Your task to perform on an android device: Open calendar and show me the first week of next month Image 0: 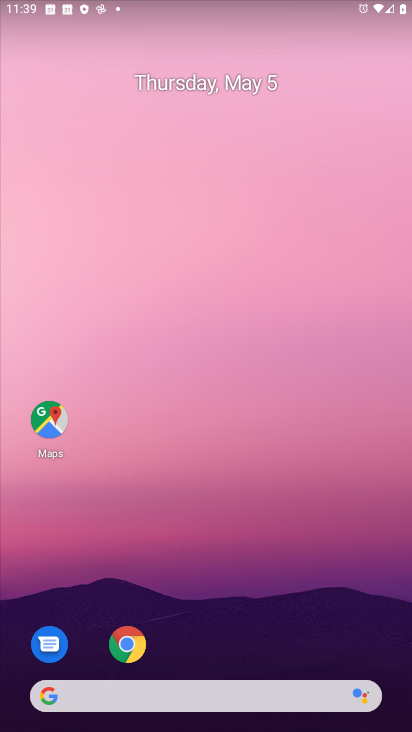
Step 0: drag from (181, 650) to (209, 108)
Your task to perform on an android device: Open calendar and show me the first week of next month Image 1: 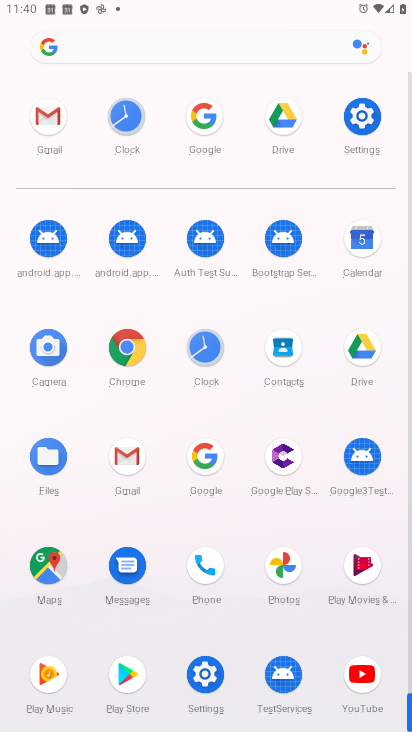
Step 1: click (367, 240)
Your task to perform on an android device: Open calendar and show me the first week of next month Image 2: 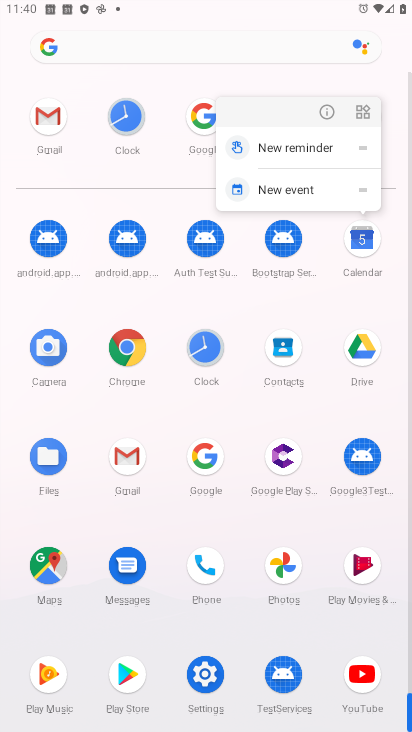
Step 2: click (334, 106)
Your task to perform on an android device: Open calendar and show me the first week of next month Image 3: 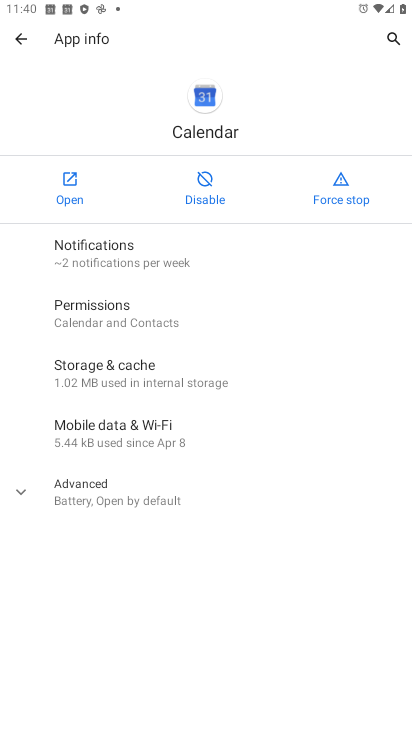
Step 3: click (76, 188)
Your task to perform on an android device: Open calendar and show me the first week of next month Image 4: 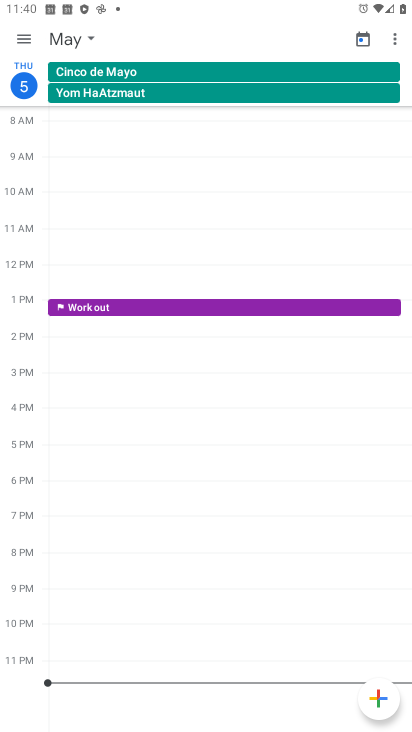
Step 4: drag from (164, 200) to (149, 543)
Your task to perform on an android device: Open calendar and show me the first week of next month Image 5: 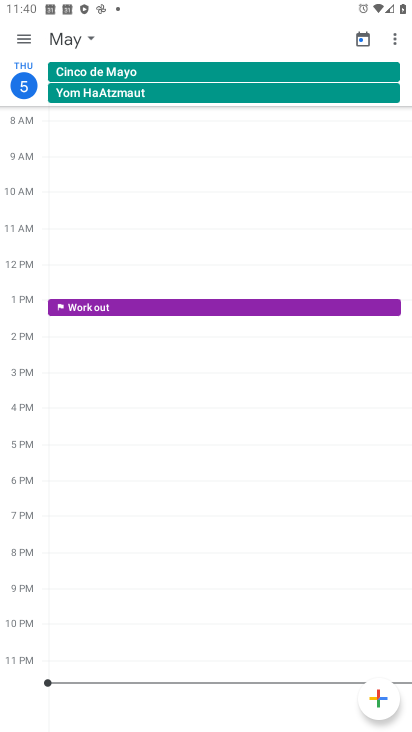
Step 5: drag from (210, 589) to (228, 171)
Your task to perform on an android device: Open calendar and show me the first week of next month Image 6: 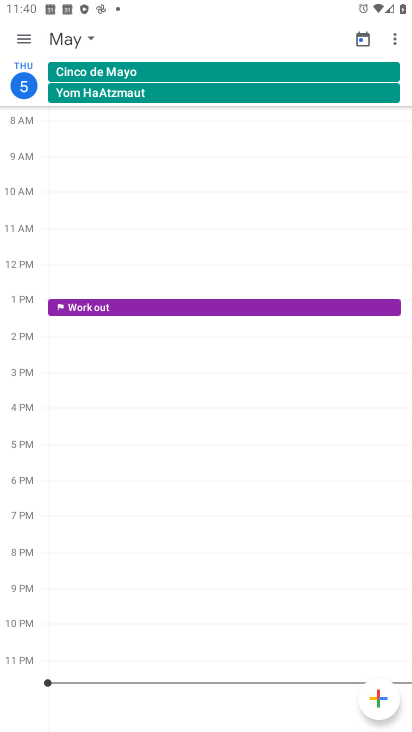
Step 6: drag from (213, 100) to (211, 518)
Your task to perform on an android device: Open calendar and show me the first week of next month Image 7: 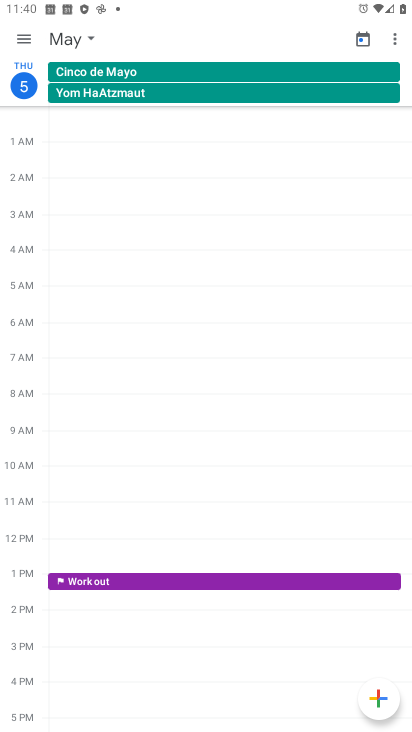
Step 7: drag from (161, 416) to (206, 218)
Your task to perform on an android device: Open calendar and show me the first week of next month Image 8: 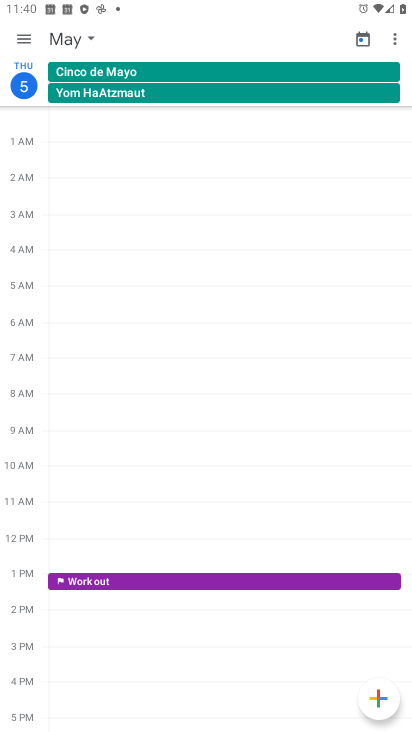
Step 8: drag from (189, 353) to (179, 150)
Your task to perform on an android device: Open calendar and show me the first week of next month Image 9: 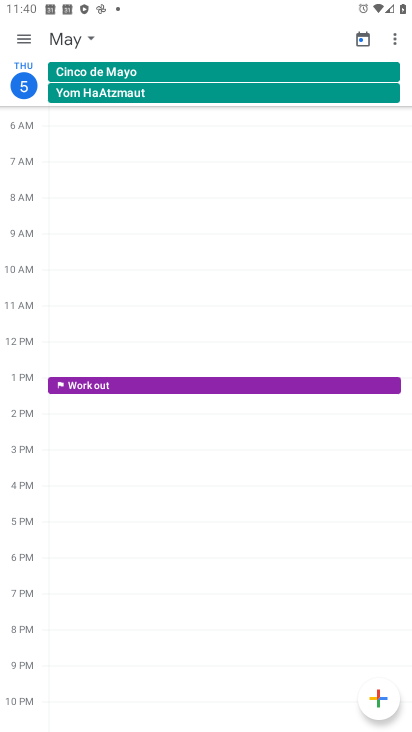
Step 9: click (215, 149)
Your task to perform on an android device: Open calendar and show me the first week of next month Image 10: 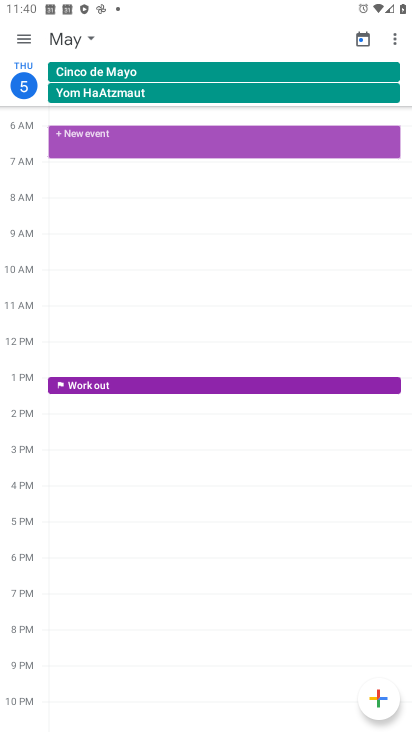
Step 10: click (320, 206)
Your task to perform on an android device: Open calendar and show me the first week of next month Image 11: 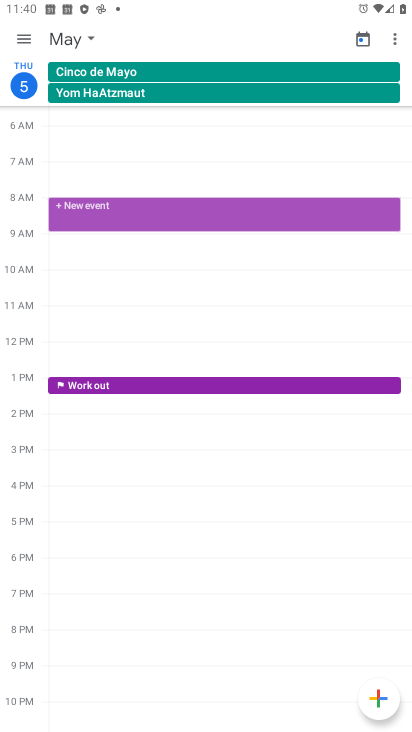
Step 11: drag from (310, 480) to (325, 279)
Your task to perform on an android device: Open calendar and show me the first week of next month Image 12: 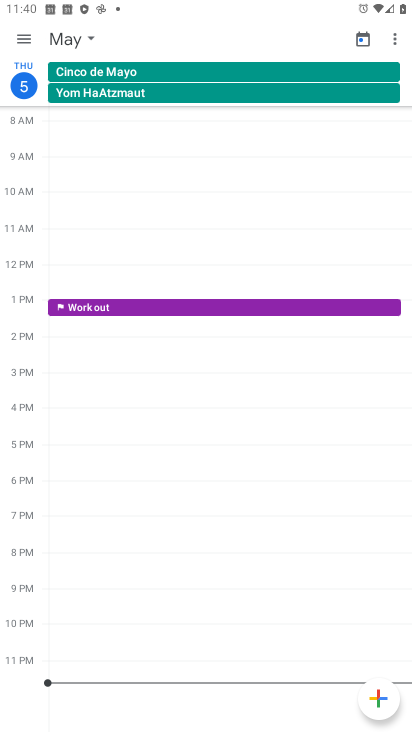
Step 12: click (59, 40)
Your task to perform on an android device: Open calendar and show me the first week of next month Image 13: 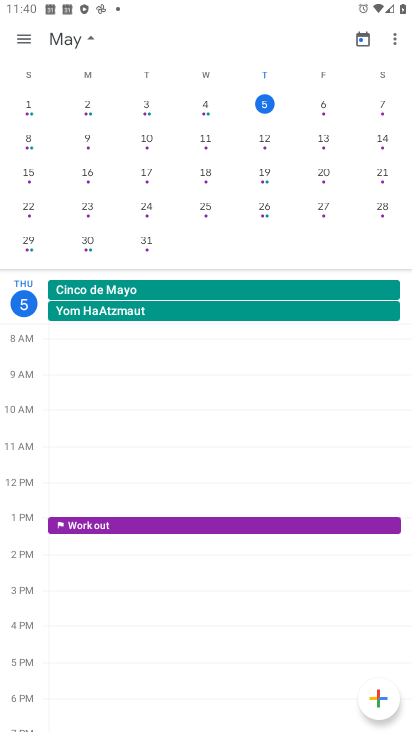
Step 13: drag from (384, 123) to (16, 95)
Your task to perform on an android device: Open calendar and show me the first week of next month Image 14: 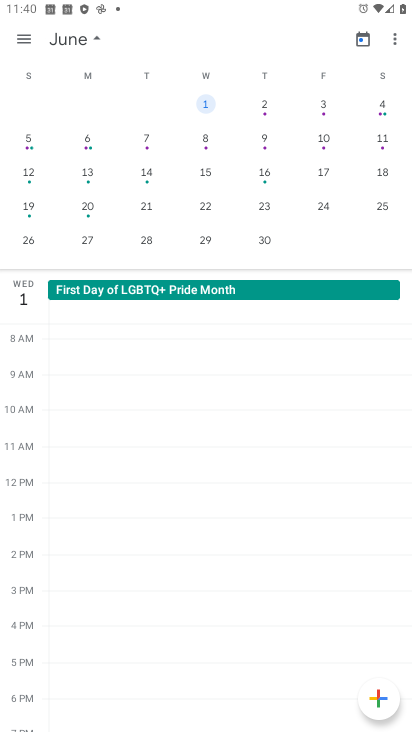
Step 14: click (268, 104)
Your task to perform on an android device: Open calendar and show me the first week of next month Image 15: 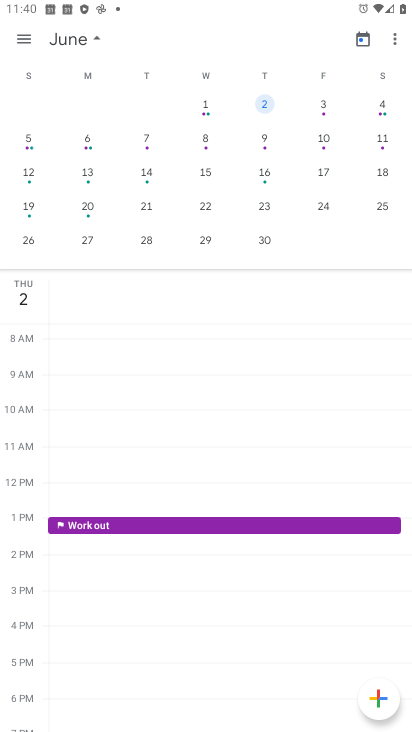
Step 15: task complete